Your task to perform on an android device: Is it going to rain this weekend? Image 0: 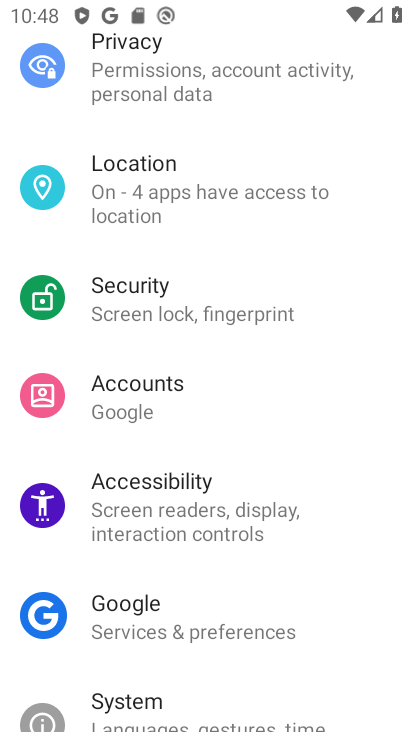
Step 0: press home button
Your task to perform on an android device: Is it going to rain this weekend? Image 1: 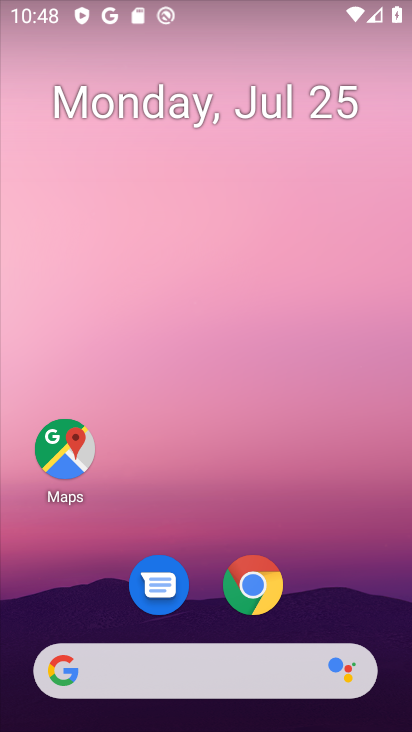
Step 1: click (220, 675)
Your task to perform on an android device: Is it going to rain this weekend? Image 2: 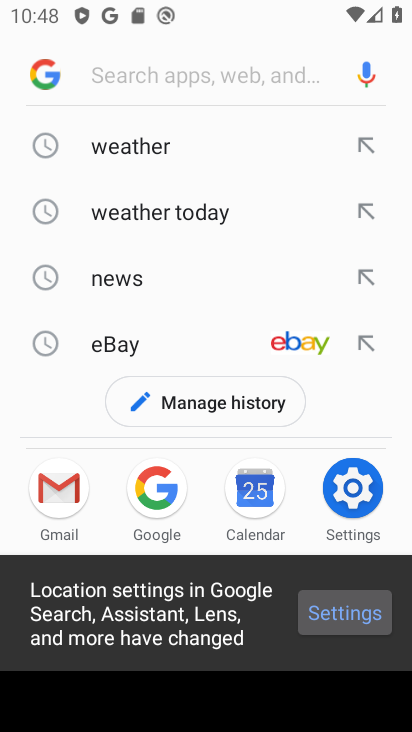
Step 2: click (40, 66)
Your task to perform on an android device: Is it going to rain this weekend? Image 3: 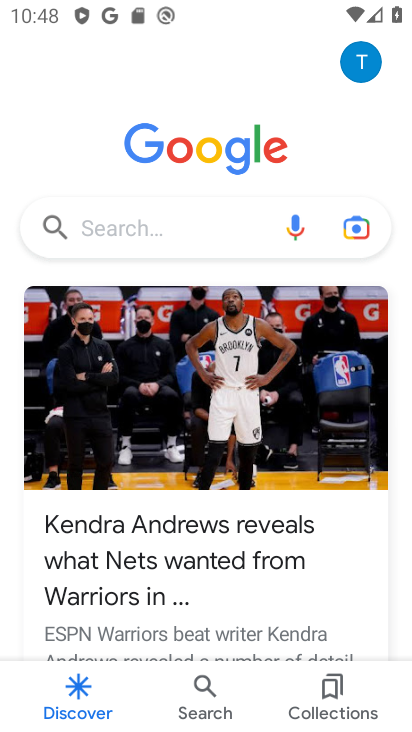
Step 3: click (160, 225)
Your task to perform on an android device: Is it going to rain this weekend? Image 4: 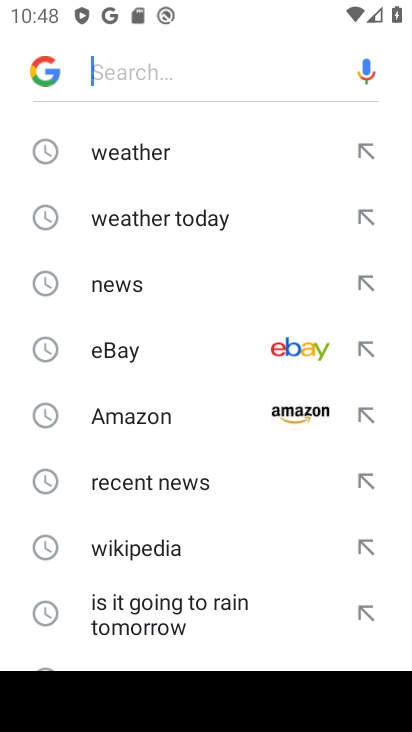
Step 4: click (143, 154)
Your task to perform on an android device: Is it going to rain this weekend? Image 5: 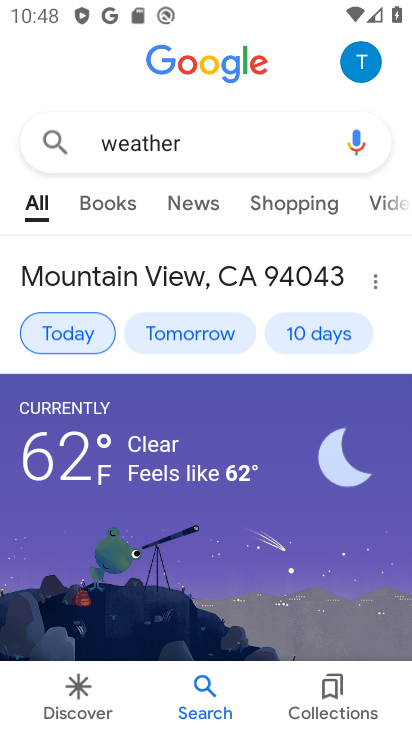
Step 5: click (332, 330)
Your task to perform on an android device: Is it going to rain this weekend? Image 6: 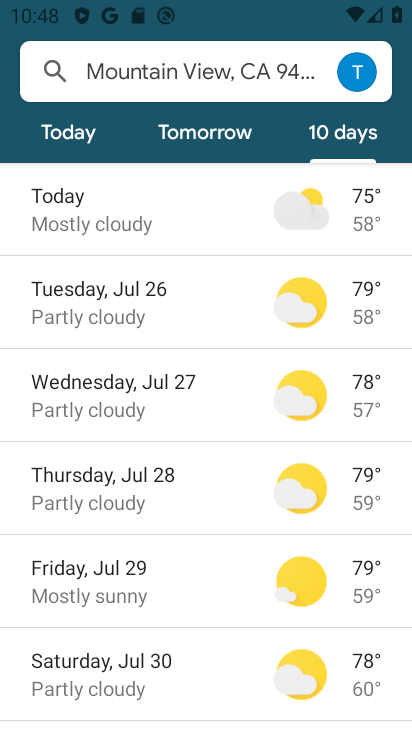
Step 6: click (134, 666)
Your task to perform on an android device: Is it going to rain this weekend? Image 7: 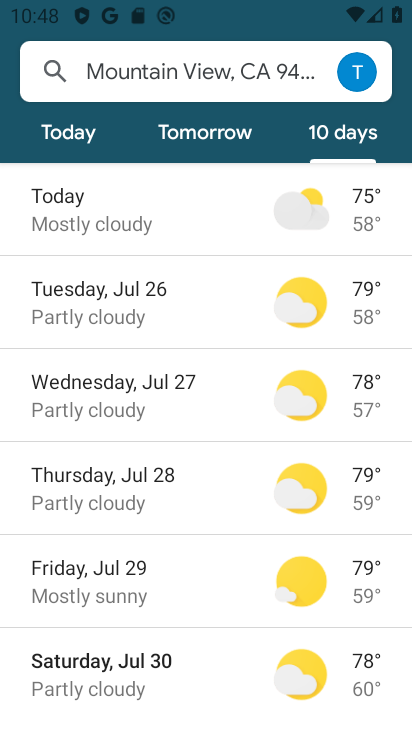
Step 7: task complete